Your task to perform on an android device: change notifications settings Image 0: 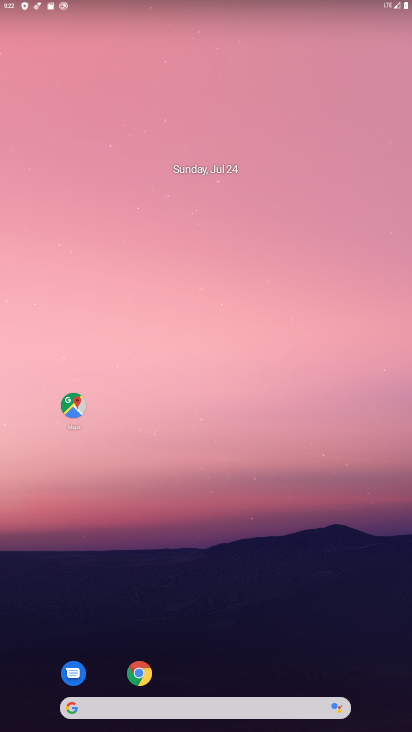
Step 0: drag from (229, 662) to (227, 238)
Your task to perform on an android device: change notifications settings Image 1: 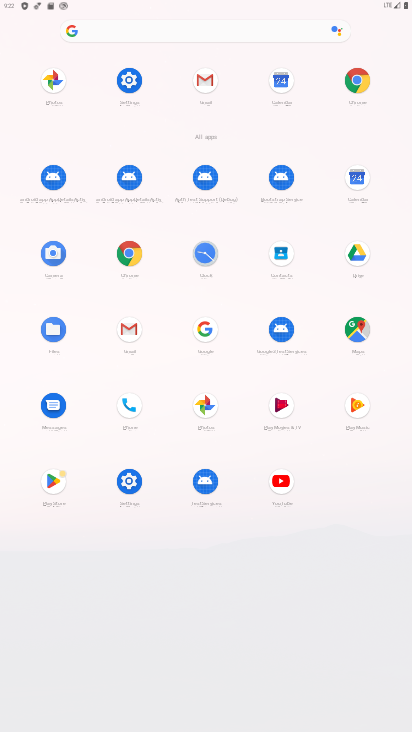
Step 1: click (134, 490)
Your task to perform on an android device: change notifications settings Image 2: 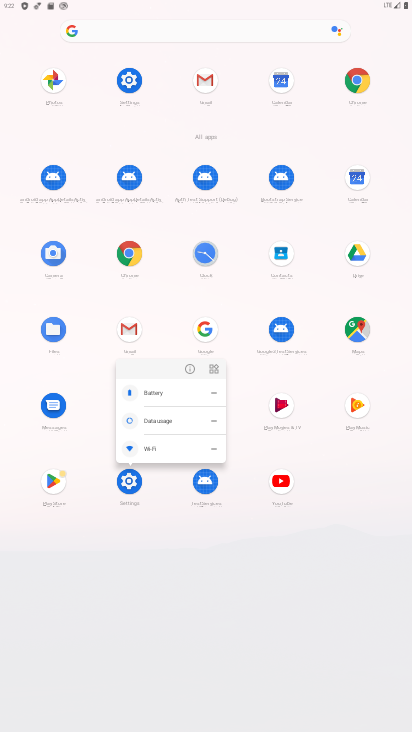
Step 2: click (133, 488)
Your task to perform on an android device: change notifications settings Image 3: 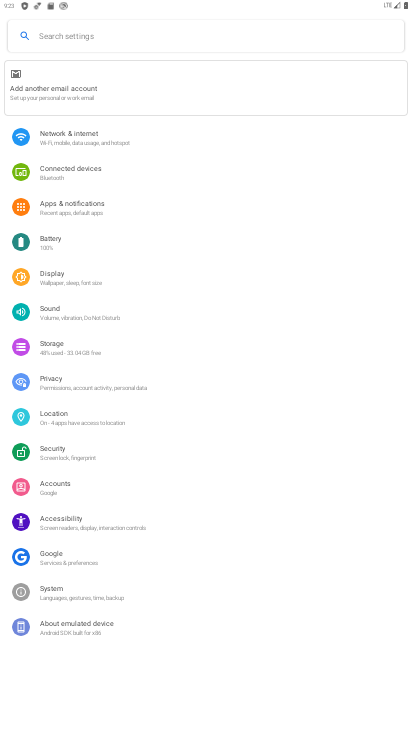
Step 3: click (102, 205)
Your task to perform on an android device: change notifications settings Image 4: 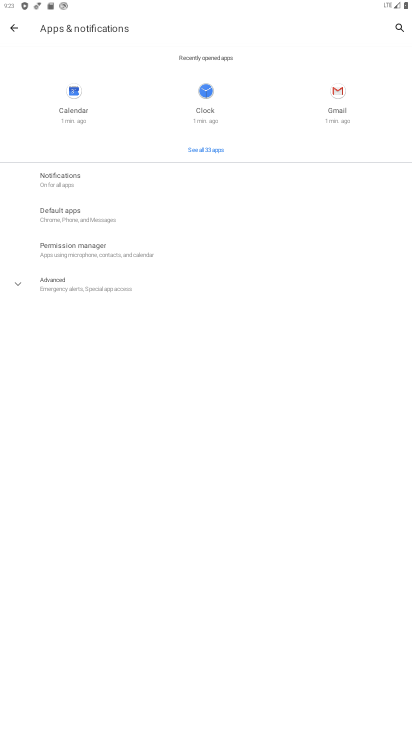
Step 4: click (90, 173)
Your task to perform on an android device: change notifications settings Image 5: 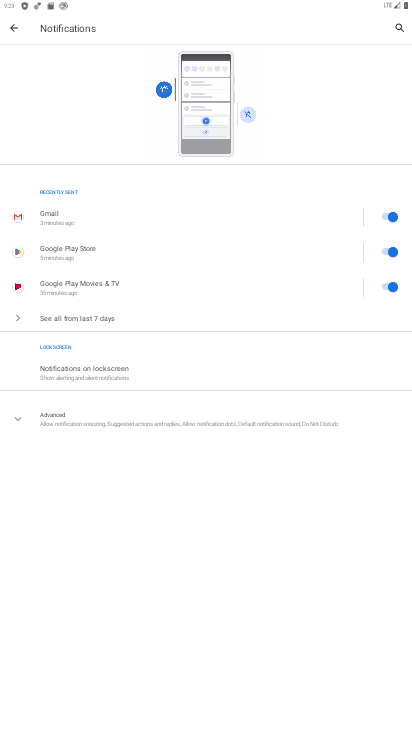
Step 5: click (75, 320)
Your task to perform on an android device: change notifications settings Image 6: 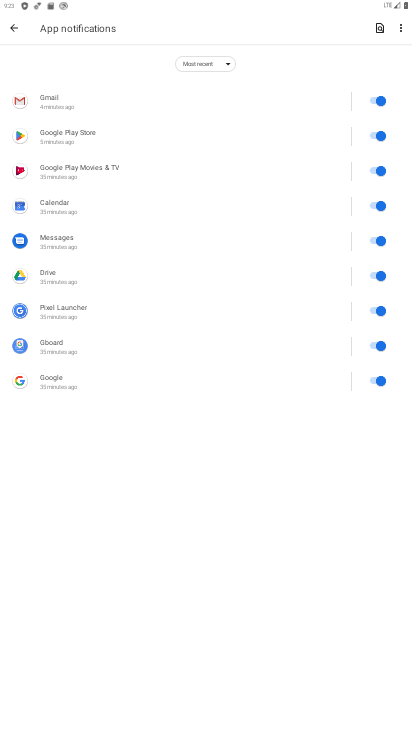
Step 6: click (364, 94)
Your task to perform on an android device: change notifications settings Image 7: 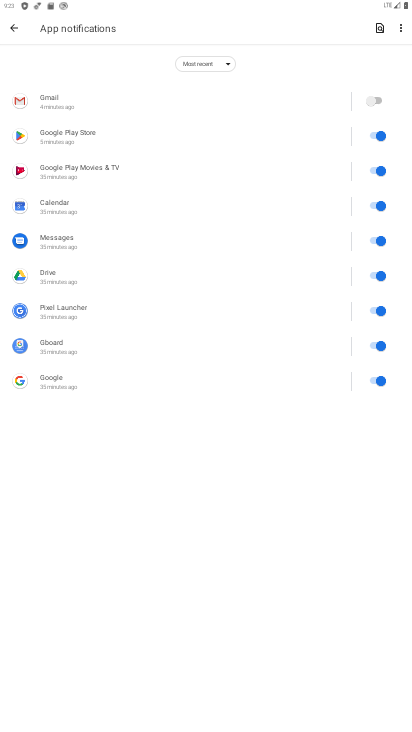
Step 7: click (371, 143)
Your task to perform on an android device: change notifications settings Image 8: 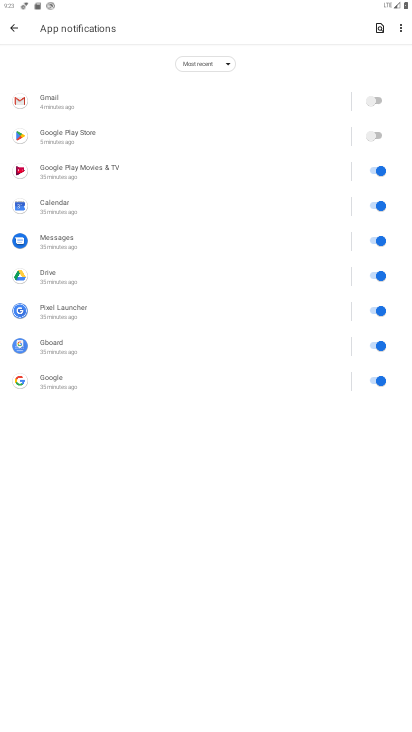
Step 8: click (368, 174)
Your task to perform on an android device: change notifications settings Image 9: 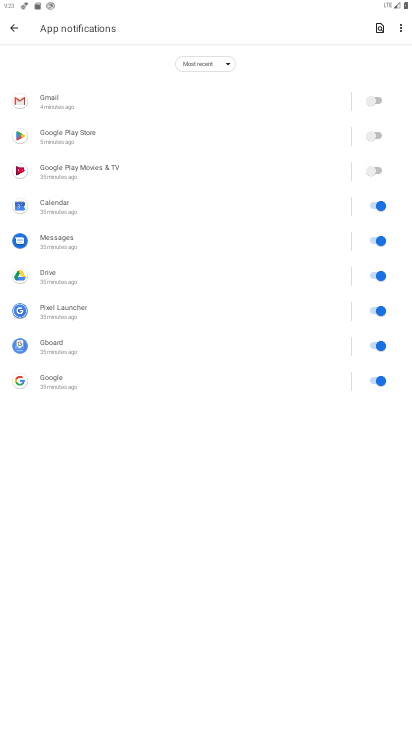
Step 9: click (367, 214)
Your task to perform on an android device: change notifications settings Image 10: 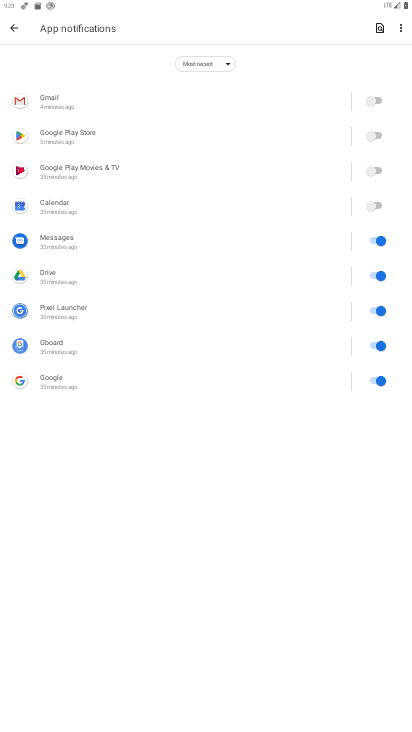
Step 10: click (364, 243)
Your task to perform on an android device: change notifications settings Image 11: 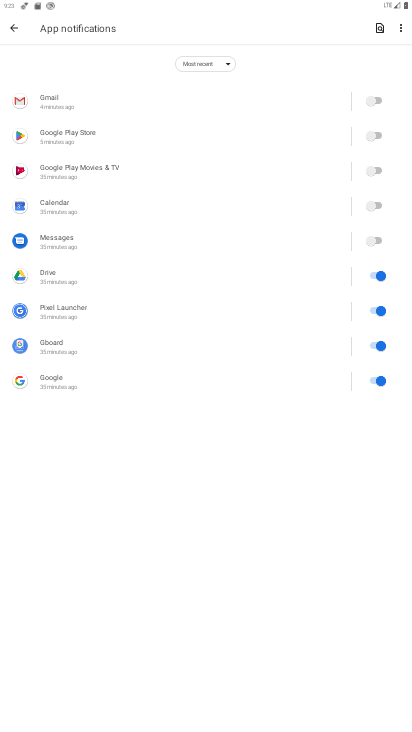
Step 11: click (365, 282)
Your task to perform on an android device: change notifications settings Image 12: 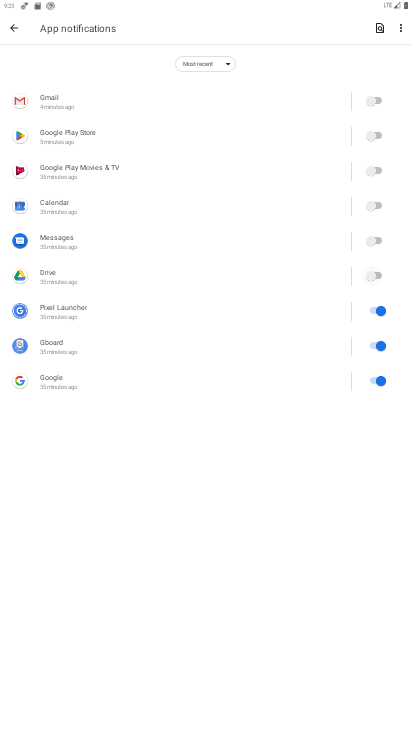
Step 12: click (362, 309)
Your task to perform on an android device: change notifications settings Image 13: 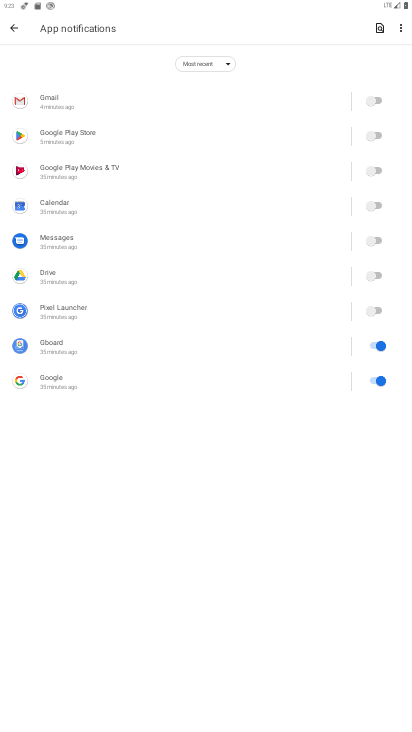
Step 13: click (358, 354)
Your task to perform on an android device: change notifications settings Image 14: 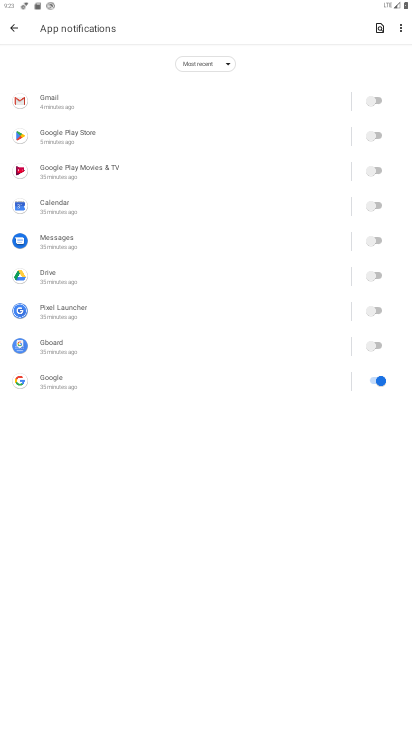
Step 14: click (373, 382)
Your task to perform on an android device: change notifications settings Image 15: 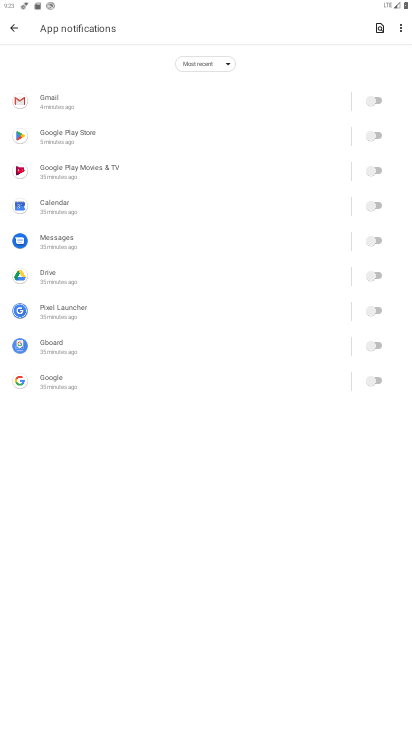
Step 15: task complete